Your task to perform on an android device: Open the contacts app Image 0: 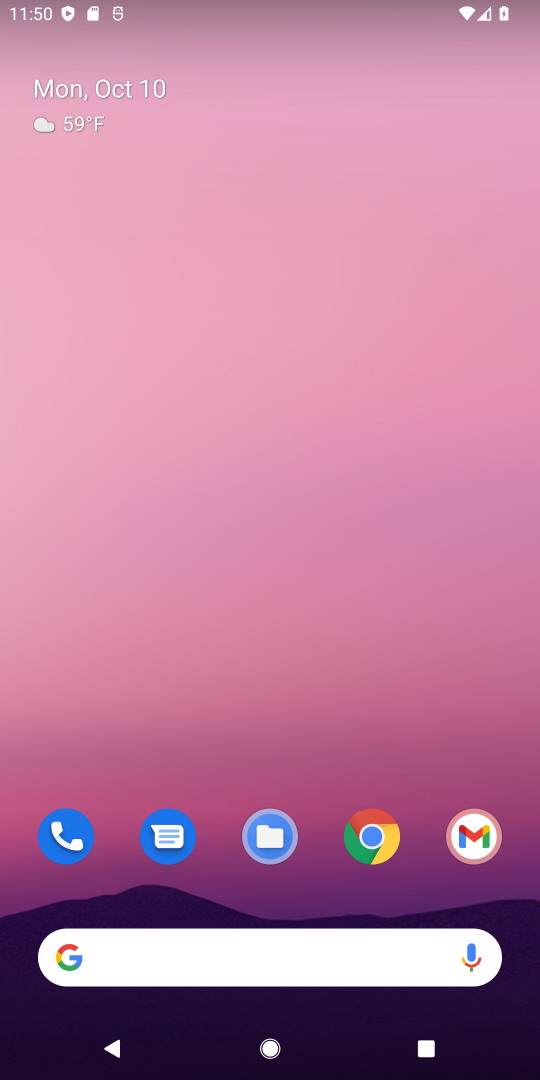
Step 0: drag from (416, 742) to (344, 89)
Your task to perform on an android device: Open the contacts app Image 1: 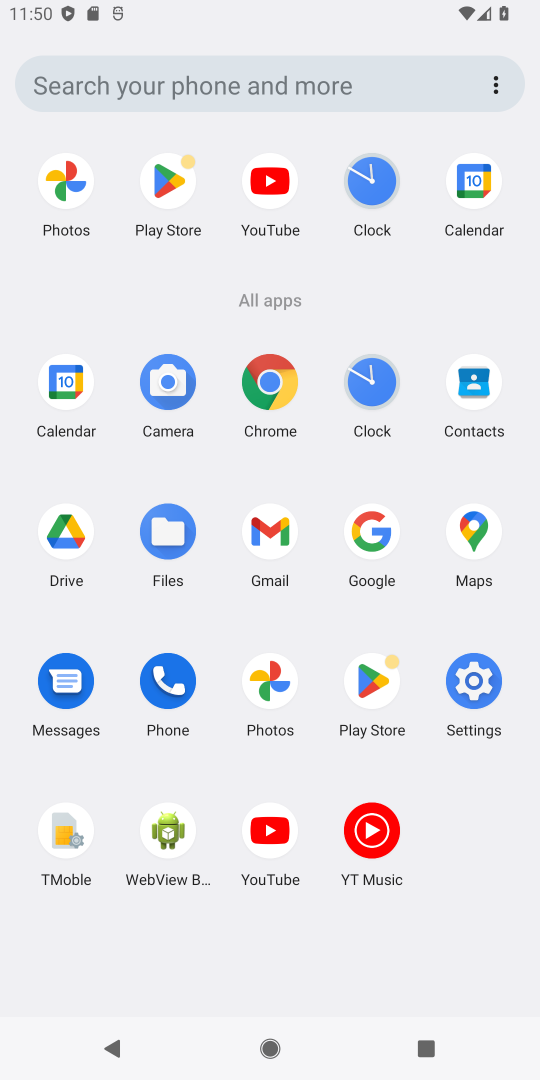
Step 1: click (466, 366)
Your task to perform on an android device: Open the contacts app Image 2: 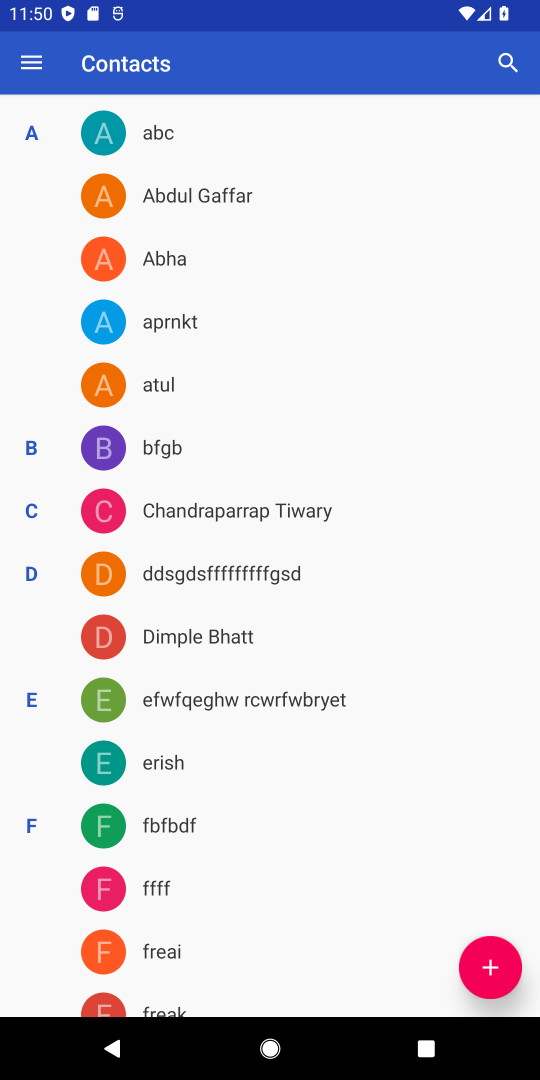
Step 2: task complete